Your task to perform on an android device: Clear all items from cart on bestbuy.com. Search for duracell triple a on bestbuy.com, select the first entry, add it to the cart, then select checkout. Image 0: 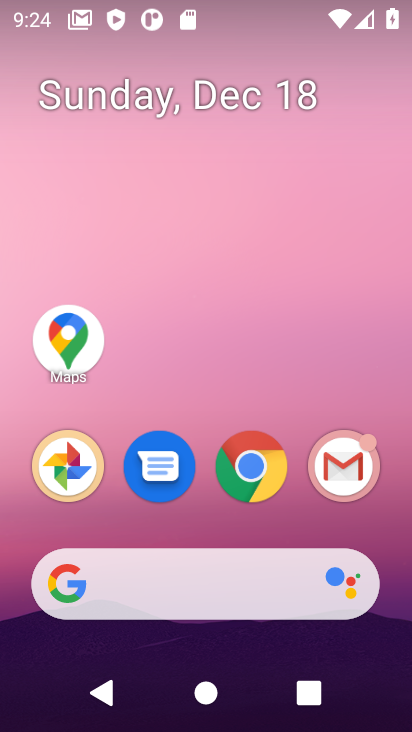
Step 0: click (239, 474)
Your task to perform on an android device: Clear all items from cart on bestbuy.com. Search for duracell triple a on bestbuy.com, select the first entry, add it to the cart, then select checkout. Image 1: 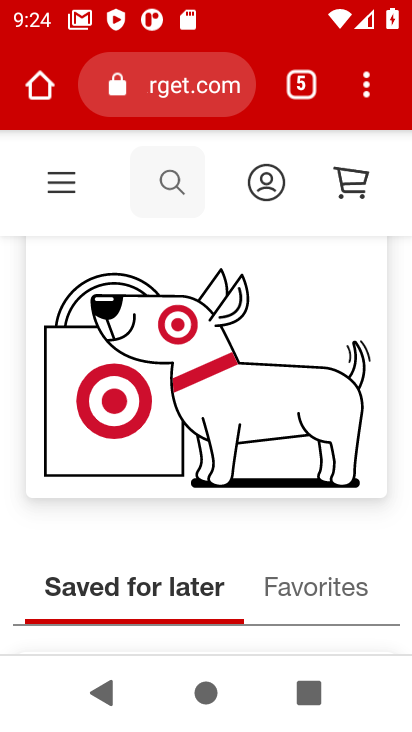
Step 1: click (190, 82)
Your task to perform on an android device: Clear all items from cart on bestbuy.com. Search for duracell triple a on bestbuy.com, select the first entry, add it to the cart, then select checkout. Image 2: 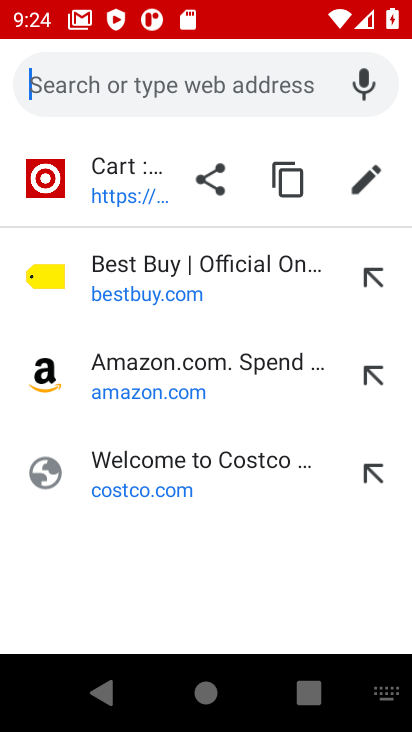
Step 2: click (185, 292)
Your task to perform on an android device: Clear all items from cart on bestbuy.com. Search for duracell triple a on bestbuy.com, select the first entry, add it to the cart, then select checkout. Image 3: 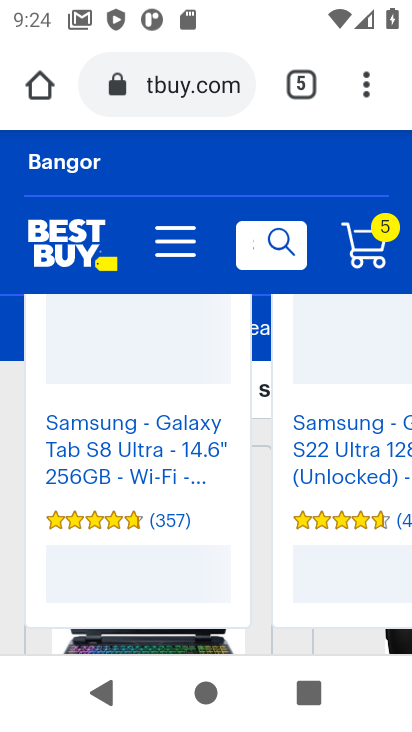
Step 3: click (371, 253)
Your task to perform on an android device: Clear all items from cart on bestbuy.com. Search for duracell triple a on bestbuy.com, select the first entry, add it to the cart, then select checkout. Image 4: 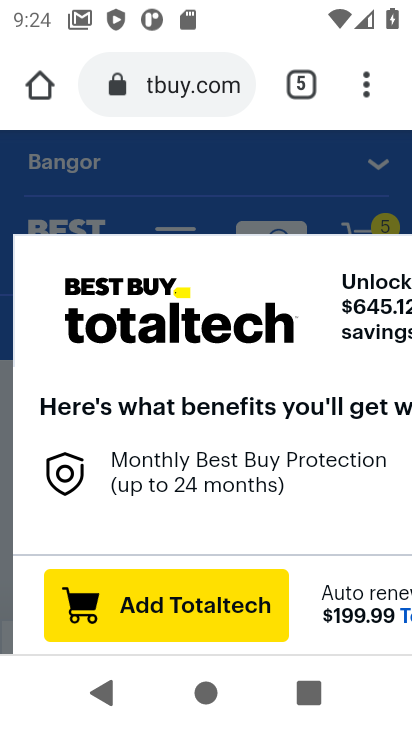
Step 4: click (211, 205)
Your task to perform on an android device: Clear all items from cart on bestbuy.com. Search for duracell triple a on bestbuy.com, select the first entry, add it to the cart, then select checkout. Image 5: 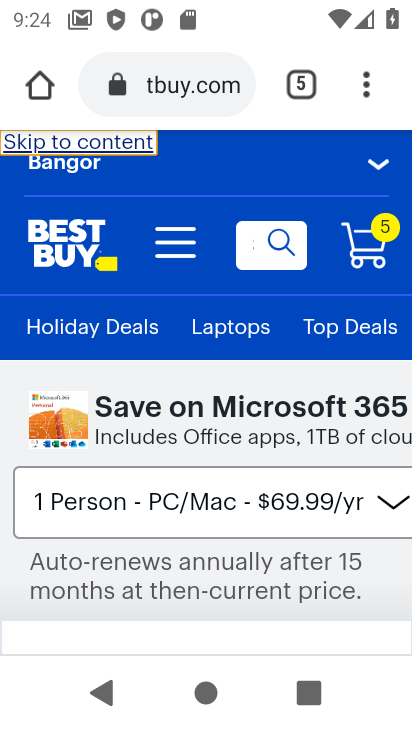
Step 5: drag from (240, 577) to (243, 87)
Your task to perform on an android device: Clear all items from cart on bestbuy.com. Search for duracell triple a on bestbuy.com, select the first entry, add it to the cart, then select checkout. Image 6: 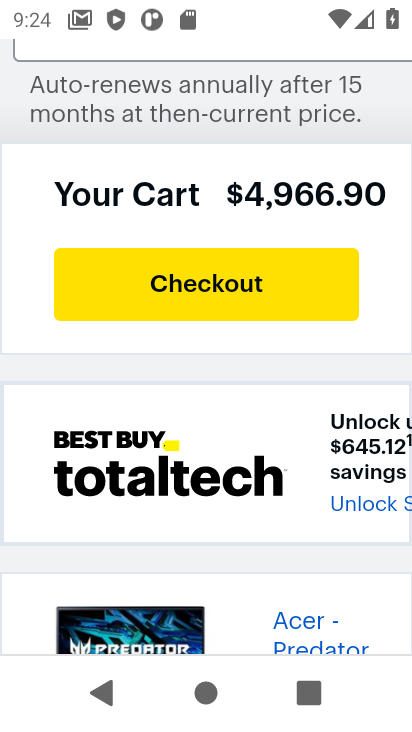
Step 6: drag from (257, 577) to (207, 83)
Your task to perform on an android device: Clear all items from cart on bestbuy.com. Search for duracell triple a on bestbuy.com, select the first entry, add it to the cart, then select checkout. Image 7: 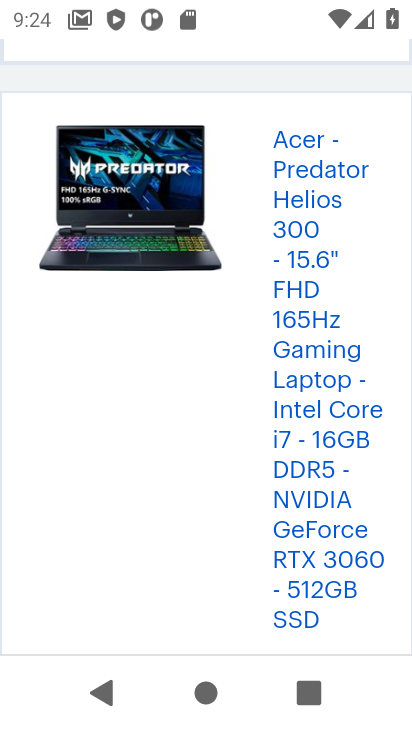
Step 7: drag from (236, 573) to (234, 73)
Your task to perform on an android device: Clear all items from cart on bestbuy.com. Search for duracell triple a on bestbuy.com, select the first entry, add it to the cart, then select checkout. Image 8: 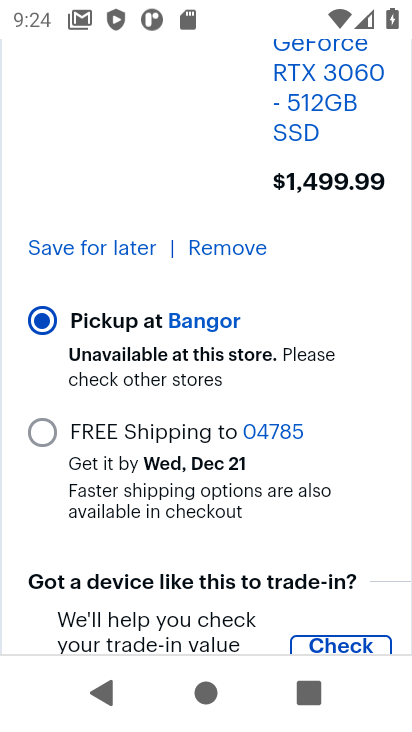
Step 8: click (232, 245)
Your task to perform on an android device: Clear all items from cart on bestbuy.com. Search for duracell triple a on bestbuy.com, select the first entry, add it to the cart, then select checkout. Image 9: 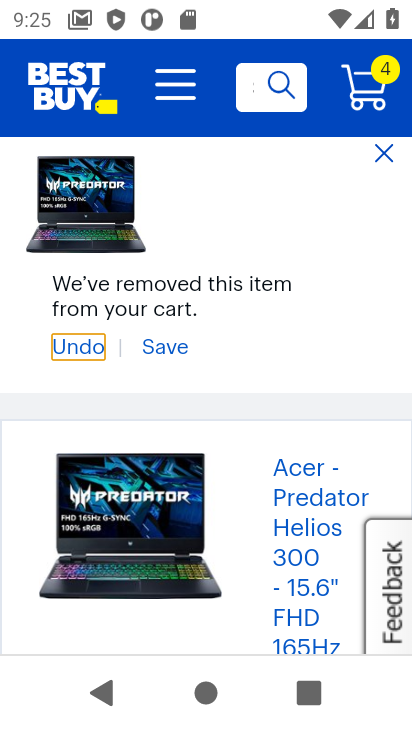
Step 9: drag from (193, 485) to (151, 94)
Your task to perform on an android device: Clear all items from cart on bestbuy.com. Search for duracell triple a on bestbuy.com, select the first entry, add it to the cart, then select checkout. Image 10: 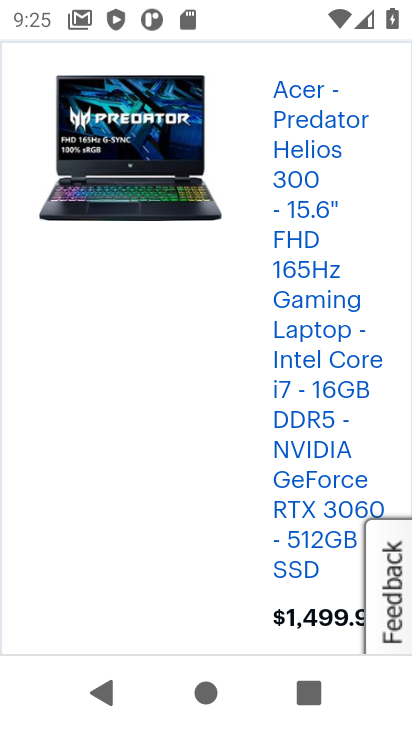
Step 10: drag from (200, 591) to (177, 176)
Your task to perform on an android device: Clear all items from cart on bestbuy.com. Search for duracell triple a on bestbuy.com, select the first entry, add it to the cart, then select checkout. Image 11: 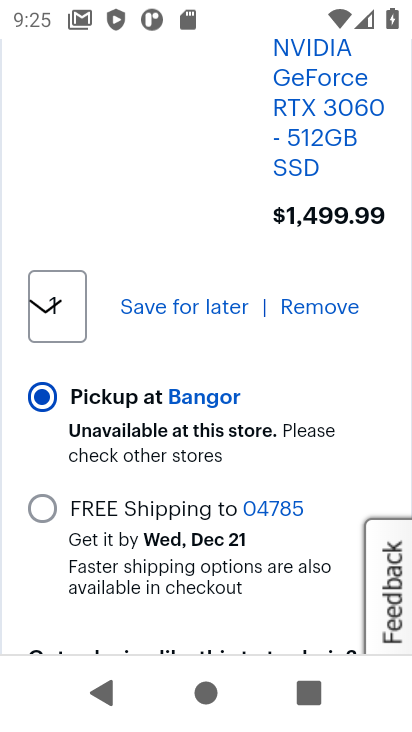
Step 11: click (312, 307)
Your task to perform on an android device: Clear all items from cart on bestbuy.com. Search for duracell triple a on bestbuy.com, select the first entry, add it to the cart, then select checkout. Image 12: 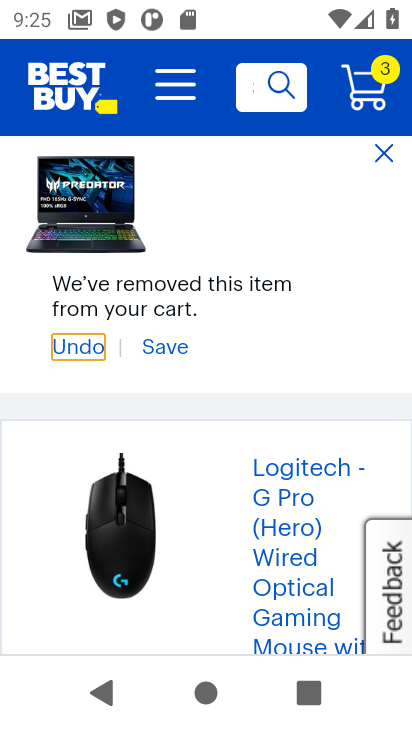
Step 12: drag from (220, 590) to (228, 15)
Your task to perform on an android device: Clear all items from cart on bestbuy.com. Search for duracell triple a on bestbuy.com, select the first entry, add it to the cart, then select checkout. Image 13: 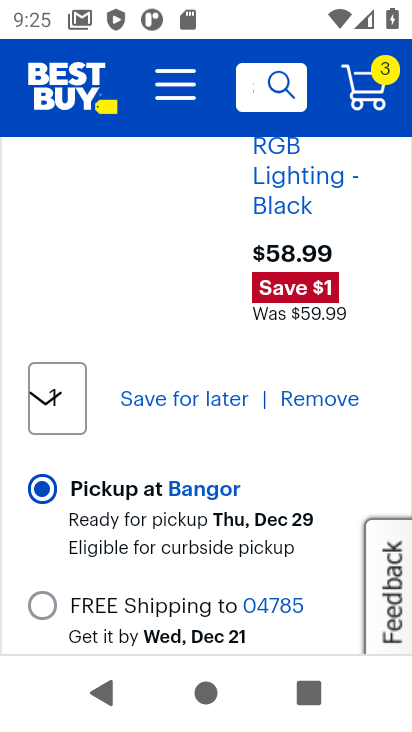
Step 13: click (303, 395)
Your task to perform on an android device: Clear all items from cart on bestbuy.com. Search for duracell triple a on bestbuy.com, select the first entry, add it to the cart, then select checkout. Image 14: 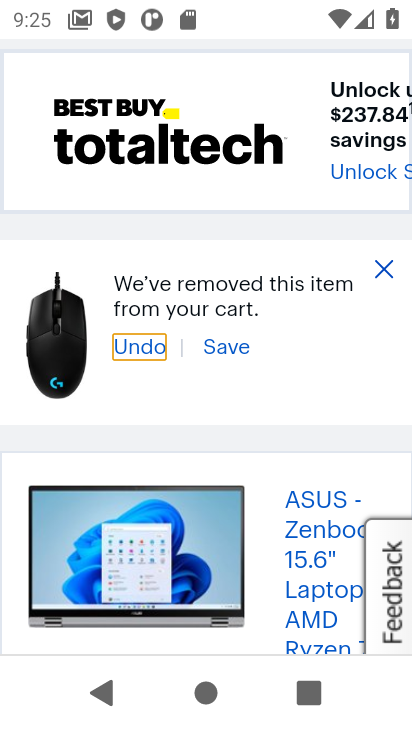
Step 14: drag from (261, 566) to (253, 39)
Your task to perform on an android device: Clear all items from cart on bestbuy.com. Search for duracell triple a on bestbuy.com, select the first entry, add it to the cart, then select checkout. Image 15: 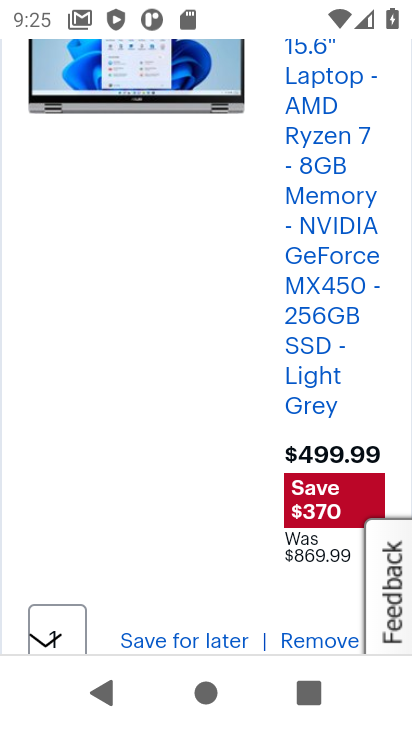
Step 15: click (299, 639)
Your task to perform on an android device: Clear all items from cart on bestbuy.com. Search for duracell triple a on bestbuy.com, select the first entry, add it to the cart, then select checkout. Image 16: 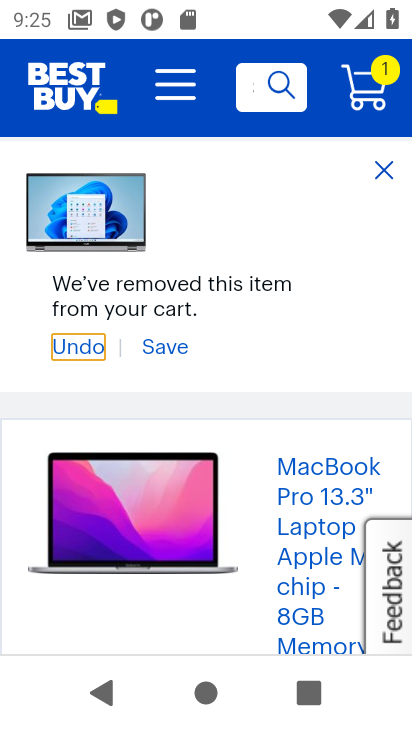
Step 16: drag from (240, 605) to (203, 26)
Your task to perform on an android device: Clear all items from cart on bestbuy.com. Search for duracell triple a on bestbuy.com, select the first entry, add it to the cart, then select checkout. Image 17: 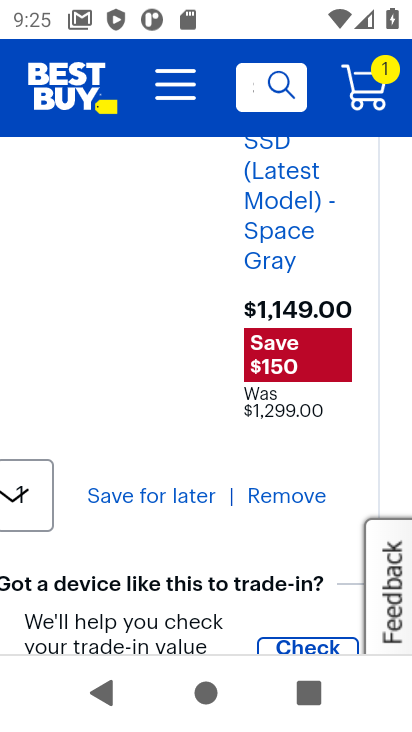
Step 17: click (283, 495)
Your task to perform on an android device: Clear all items from cart on bestbuy.com. Search for duracell triple a on bestbuy.com, select the first entry, add it to the cart, then select checkout. Image 18: 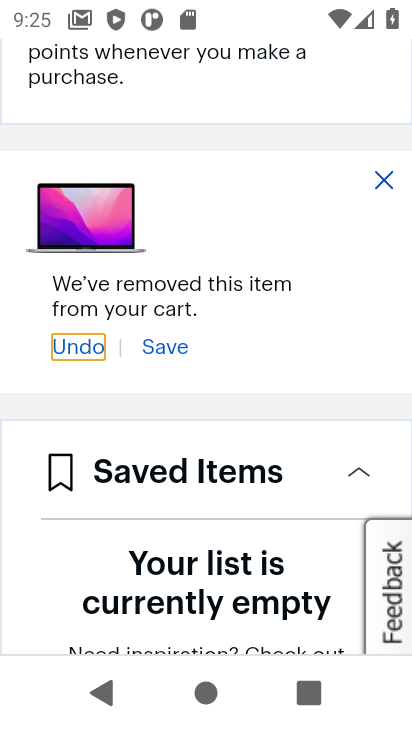
Step 18: drag from (208, 143) to (164, 631)
Your task to perform on an android device: Clear all items from cart on bestbuy.com. Search for duracell triple a on bestbuy.com, select the first entry, add it to the cart, then select checkout. Image 19: 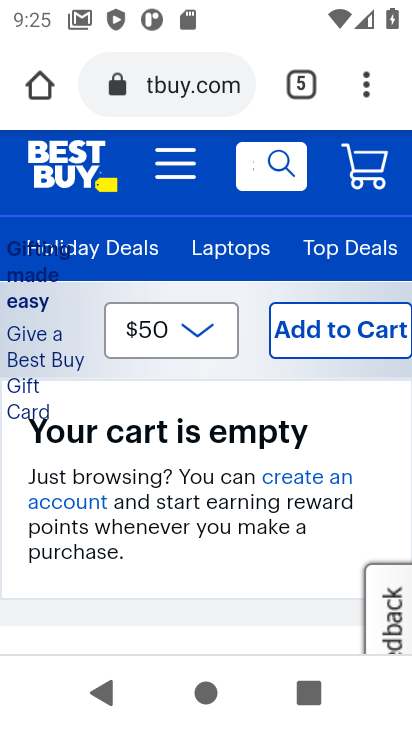
Step 19: click (281, 160)
Your task to perform on an android device: Clear all items from cart on bestbuy.com. Search for duracell triple a on bestbuy.com, select the first entry, add it to the cart, then select checkout. Image 20: 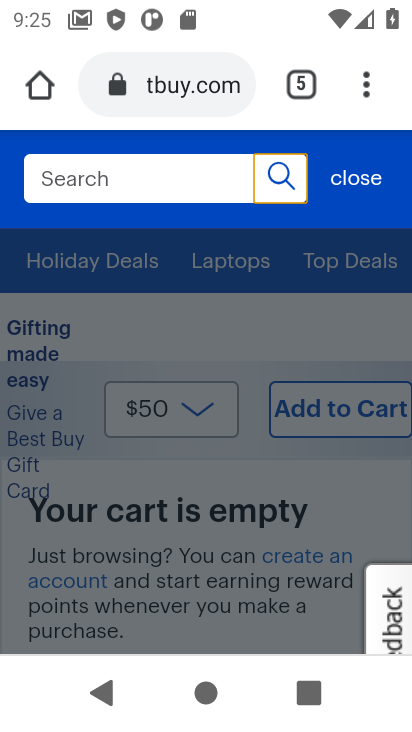
Step 20: click (102, 177)
Your task to perform on an android device: Clear all items from cart on bestbuy.com. Search for duracell triple a on bestbuy.com, select the first entry, add it to the cart, then select checkout. Image 21: 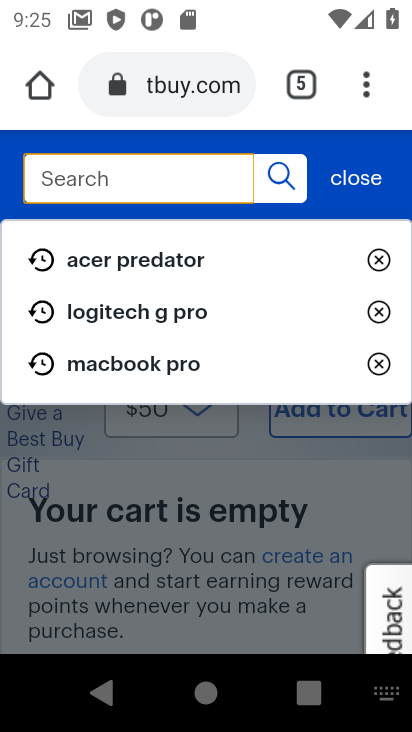
Step 21: type "duracell triple a"
Your task to perform on an android device: Clear all items from cart on bestbuy.com. Search for duracell triple a on bestbuy.com, select the first entry, add it to the cart, then select checkout. Image 22: 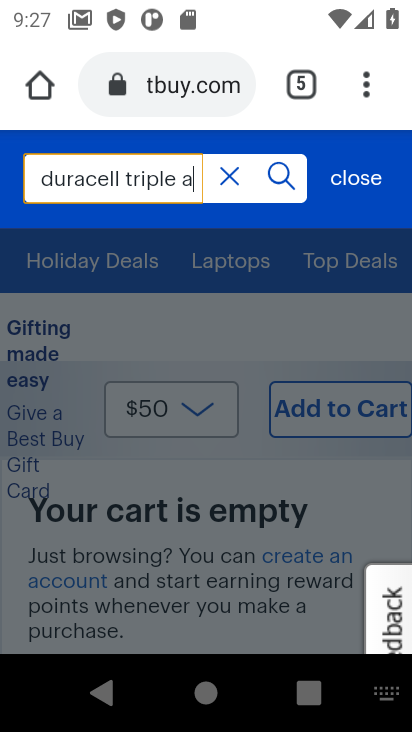
Step 22: click (284, 171)
Your task to perform on an android device: Clear all items from cart on bestbuy.com. Search for duracell triple a on bestbuy.com, select the first entry, add it to the cart, then select checkout. Image 23: 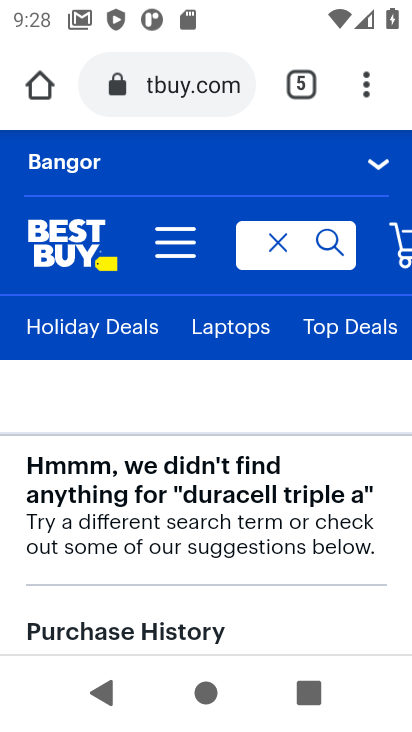
Step 23: task complete